Your task to perform on an android device: Open wifi settings Image 0: 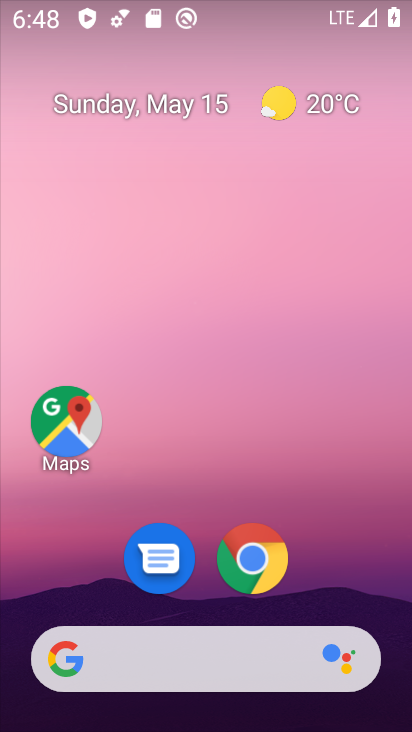
Step 0: drag from (319, 478) to (207, 34)
Your task to perform on an android device: Open wifi settings Image 1: 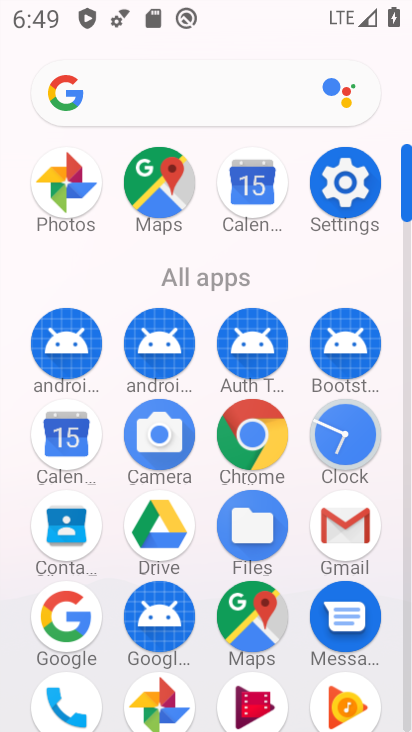
Step 1: click (355, 186)
Your task to perform on an android device: Open wifi settings Image 2: 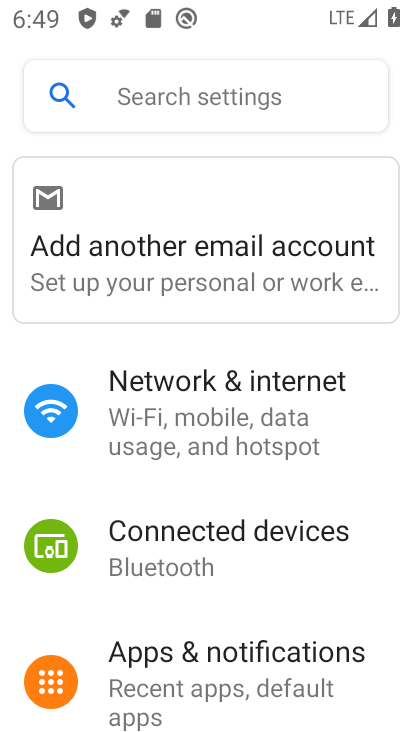
Step 2: click (219, 407)
Your task to perform on an android device: Open wifi settings Image 3: 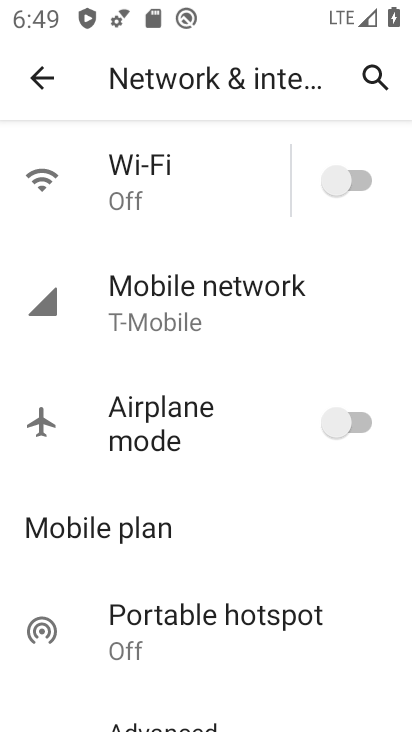
Step 3: task complete